Your task to perform on an android device: Search for sushi restaurants on Maps Image 0: 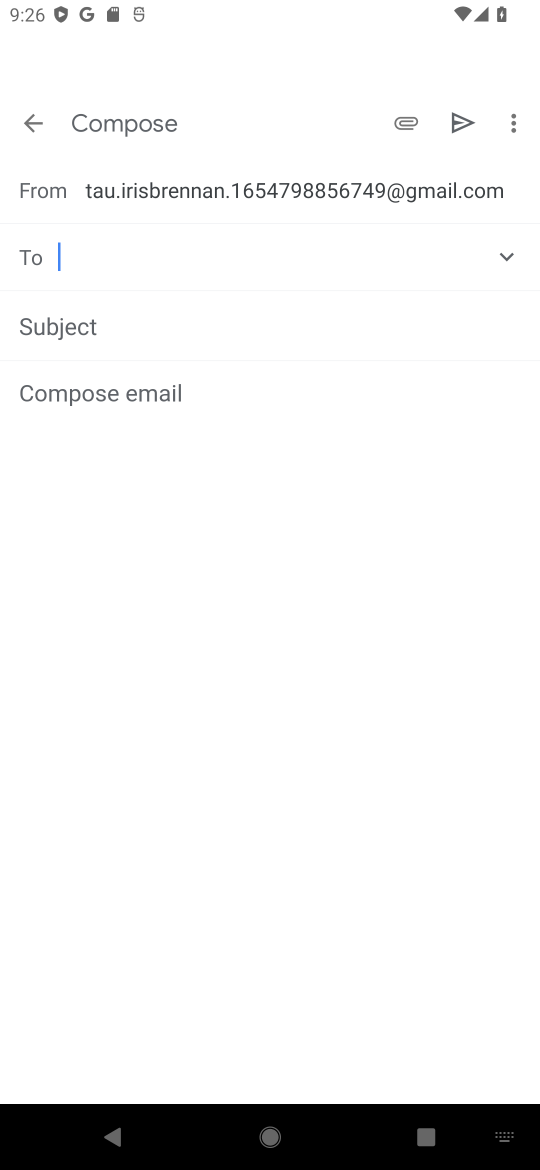
Step 0: press home button
Your task to perform on an android device: Search for sushi restaurants on Maps Image 1: 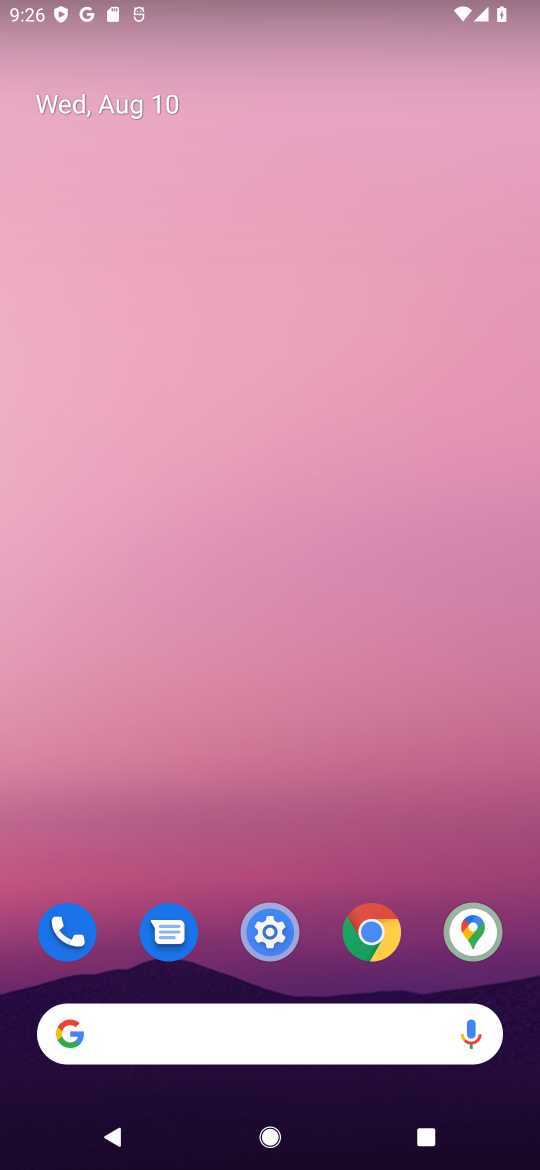
Step 1: click (475, 921)
Your task to perform on an android device: Search for sushi restaurants on Maps Image 2: 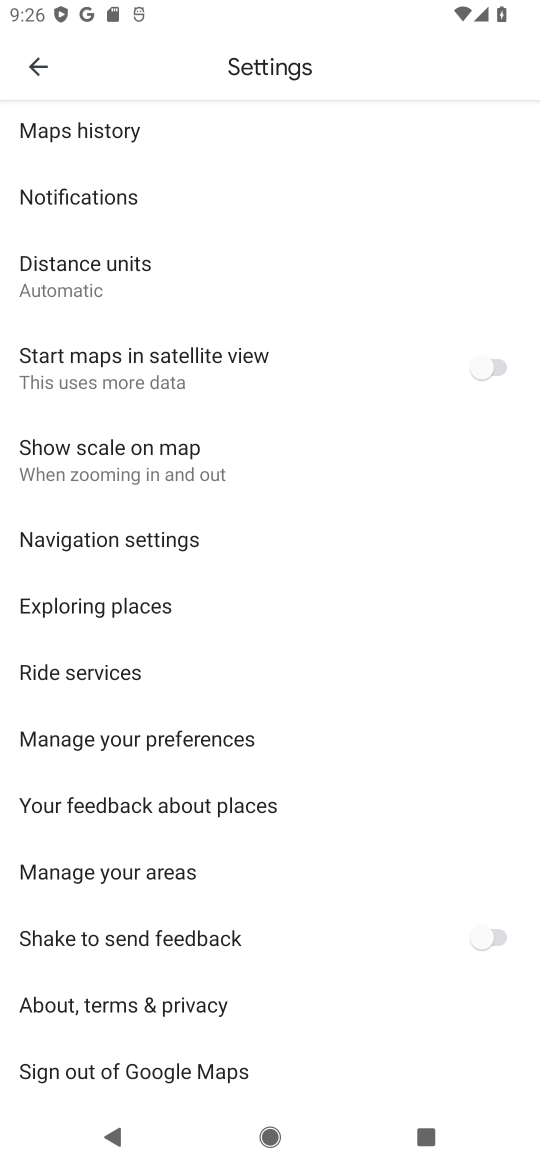
Step 2: click (36, 57)
Your task to perform on an android device: Search for sushi restaurants on Maps Image 3: 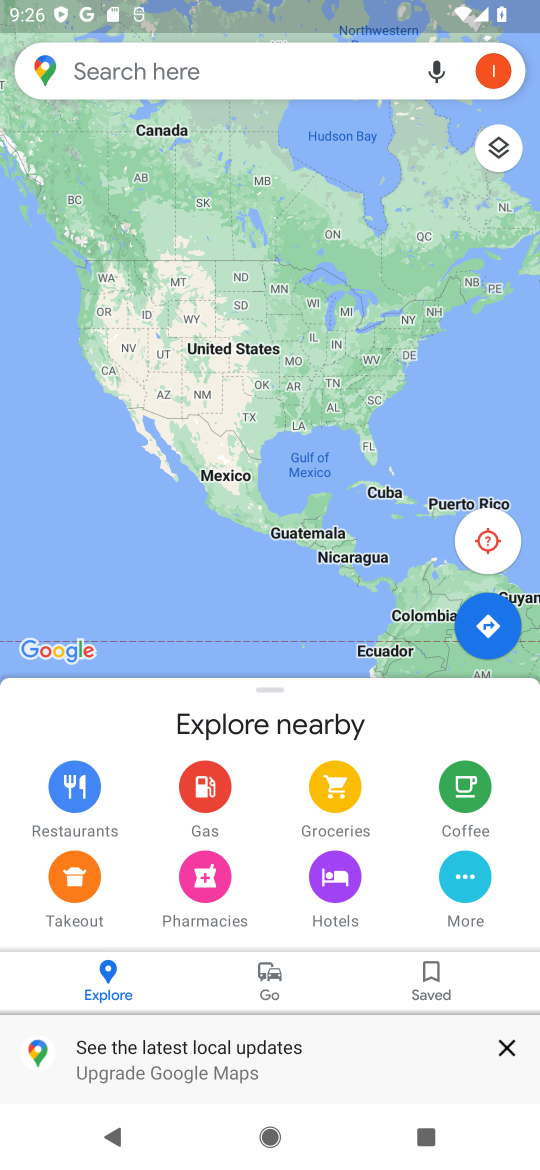
Step 3: click (177, 69)
Your task to perform on an android device: Search for sushi restaurants on Maps Image 4: 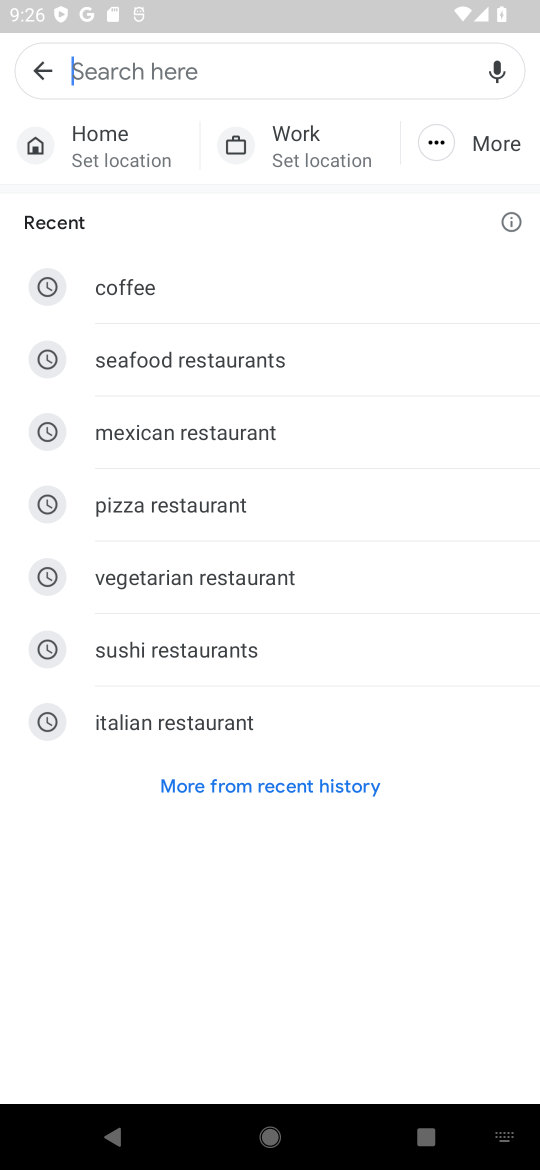
Step 4: click (207, 648)
Your task to perform on an android device: Search for sushi restaurants on Maps Image 5: 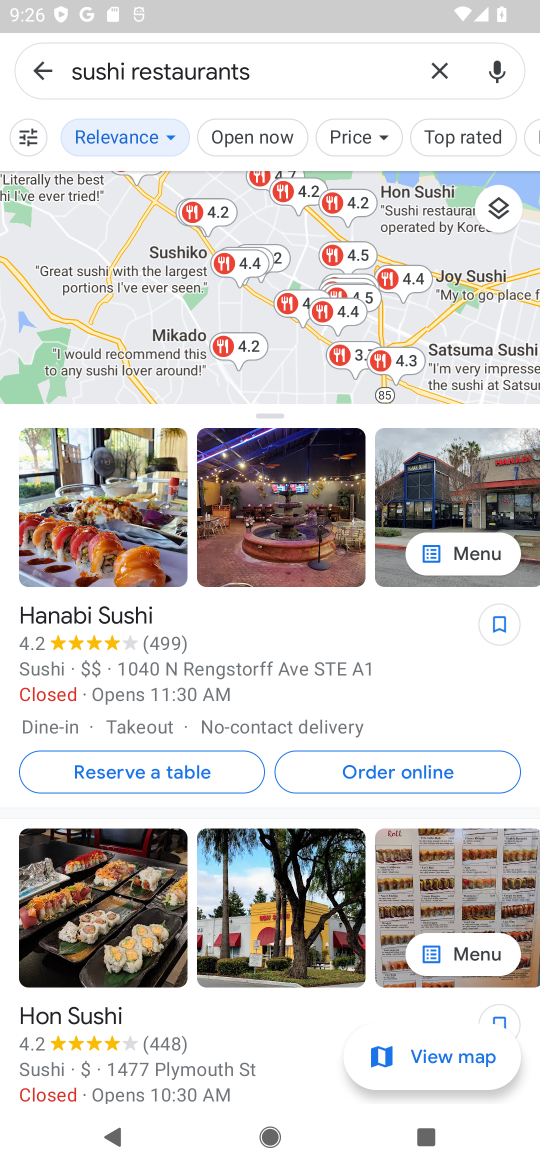
Step 5: task complete